Your task to perform on an android device: Is it going to rain tomorrow? Image 0: 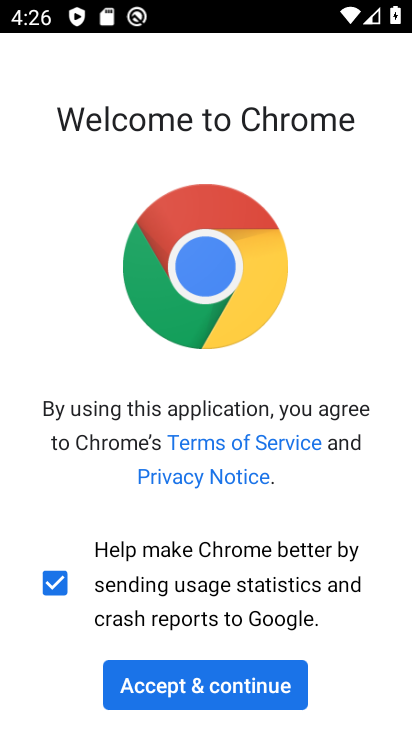
Step 0: press home button
Your task to perform on an android device: Is it going to rain tomorrow? Image 1: 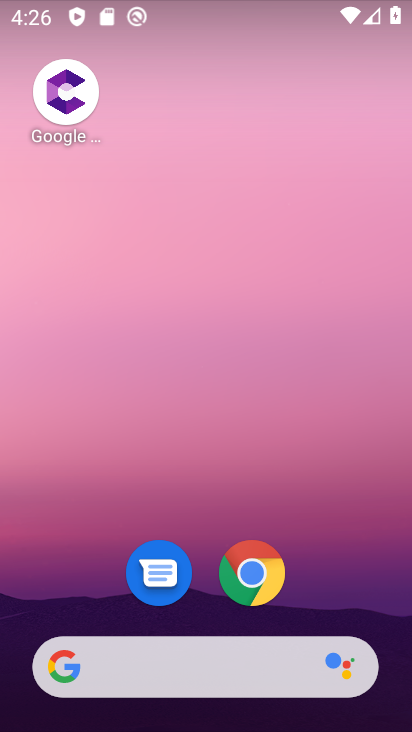
Step 1: drag from (331, 399) to (316, 166)
Your task to perform on an android device: Is it going to rain tomorrow? Image 2: 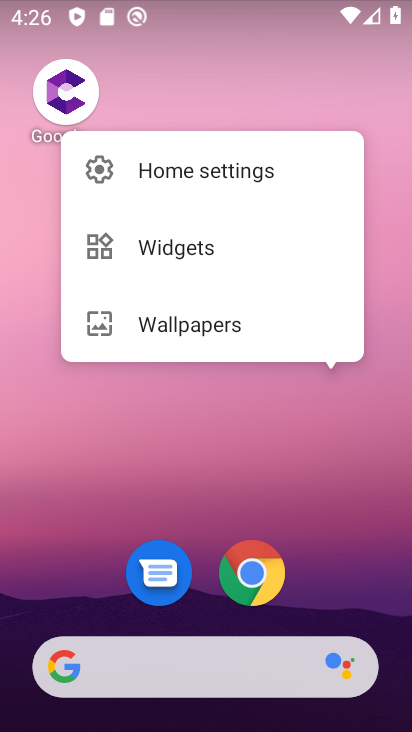
Step 2: click (311, 522)
Your task to perform on an android device: Is it going to rain tomorrow? Image 3: 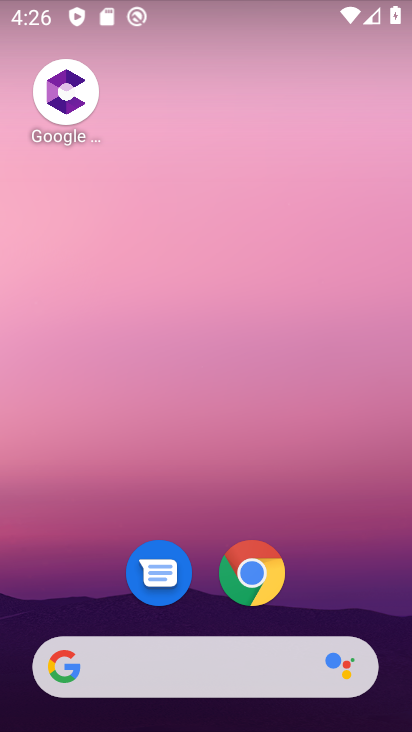
Step 3: drag from (311, 591) to (221, 15)
Your task to perform on an android device: Is it going to rain tomorrow? Image 4: 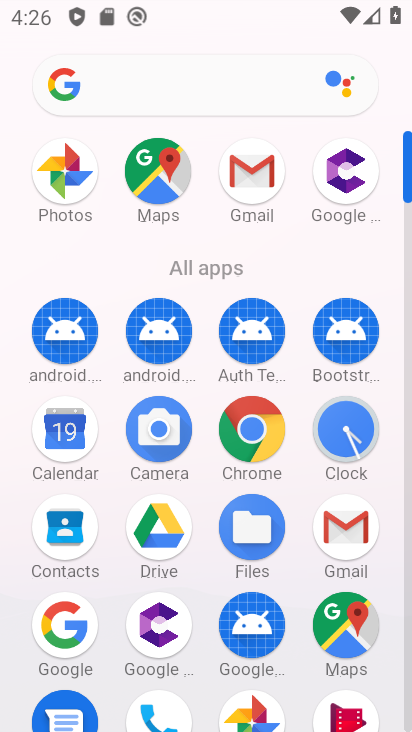
Step 4: click (65, 631)
Your task to perform on an android device: Is it going to rain tomorrow? Image 5: 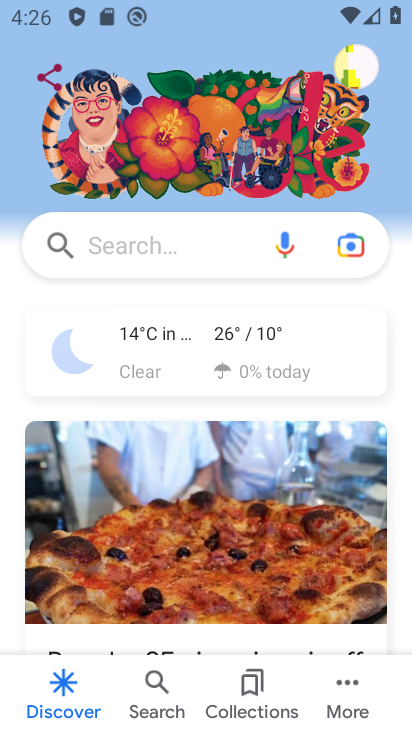
Step 5: click (141, 249)
Your task to perform on an android device: Is it going to rain tomorrow? Image 6: 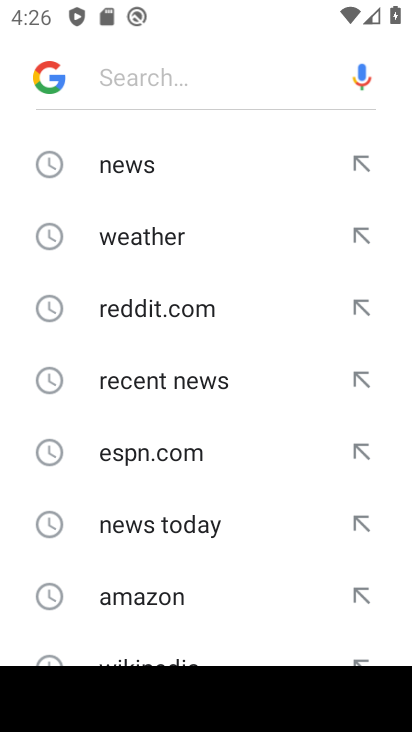
Step 6: click (143, 242)
Your task to perform on an android device: Is it going to rain tomorrow? Image 7: 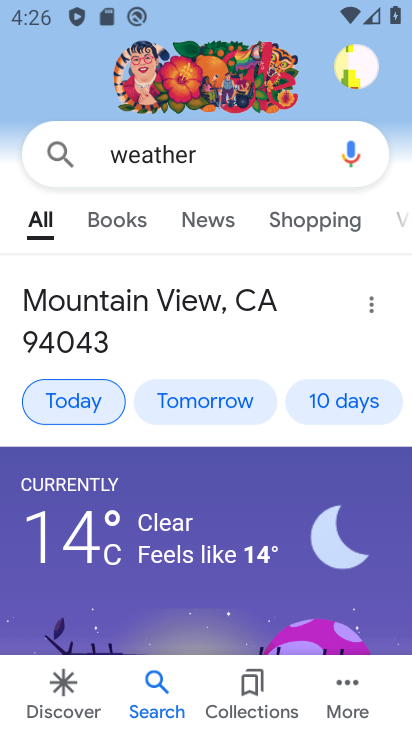
Step 7: click (211, 399)
Your task to perform on an android device: Is it going to rain tomorrow? Image 8: 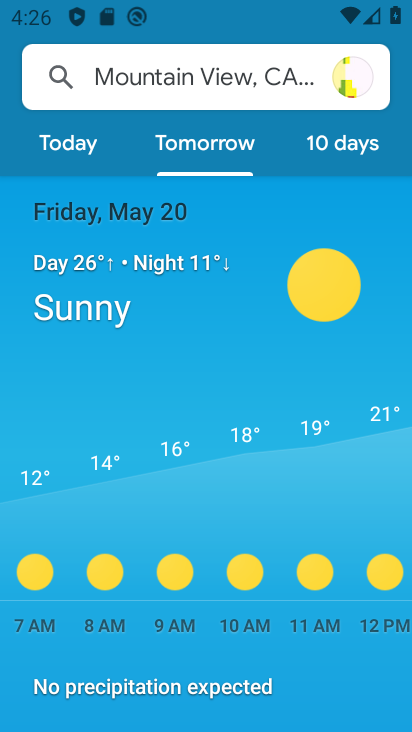
Step 8: task complete